Your task to perform on an android device: clear history in the chrome app Image 0: 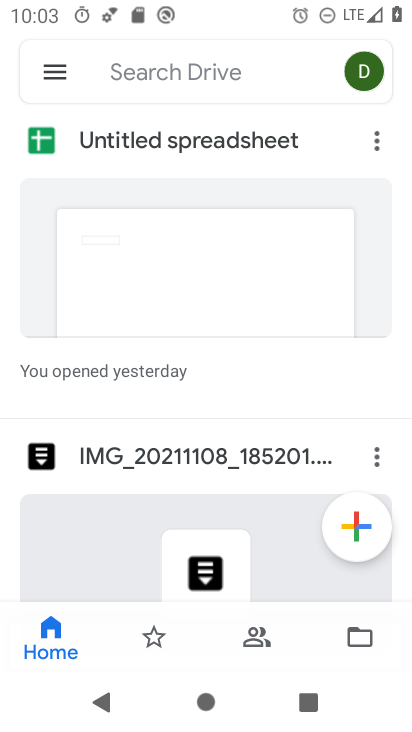
Step 0: press home button
Your task to perform on an android device: clear history in the chrome app Image 1: 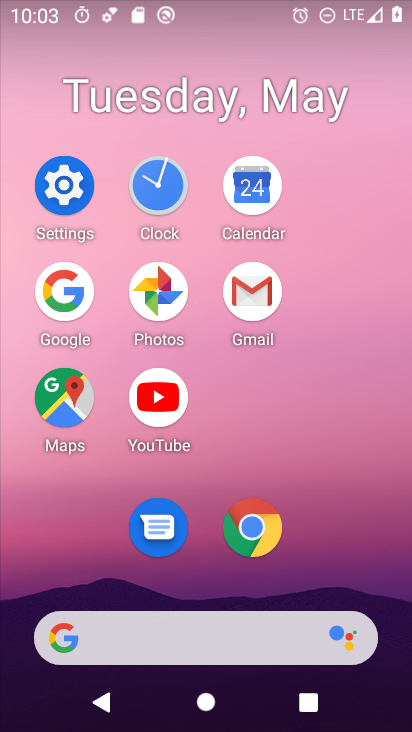
Step 1: click (245, 524)
Your task to perform on an android device: clear history in the chrome app Image 2: 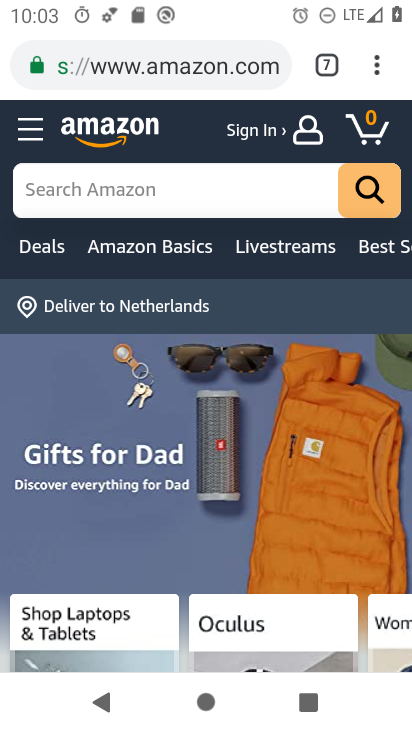
Step 2: click (377, 64)
Your task to perform on an android device: clear history in the chrome app Image 3: 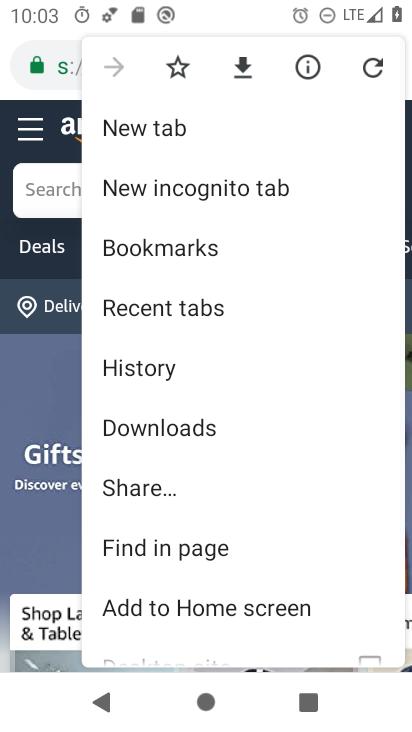
Step 3: click (173, 363)
Your task to perform on an android device: clear history in the chrome app Image 4: 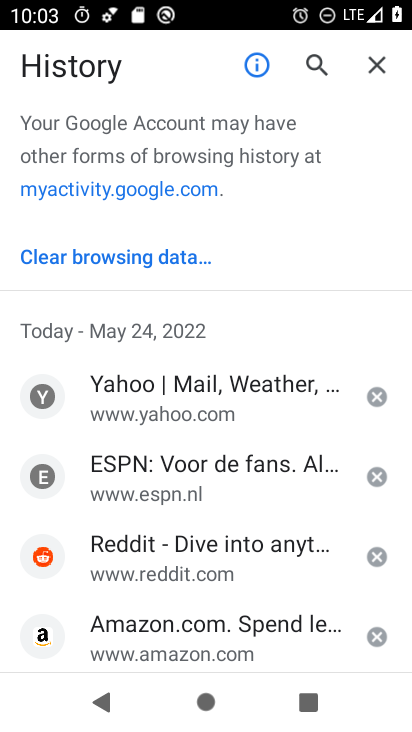
Step 4: click (130, 257)
Your task to perform on an android device: clear history in the chrome app Image 5: 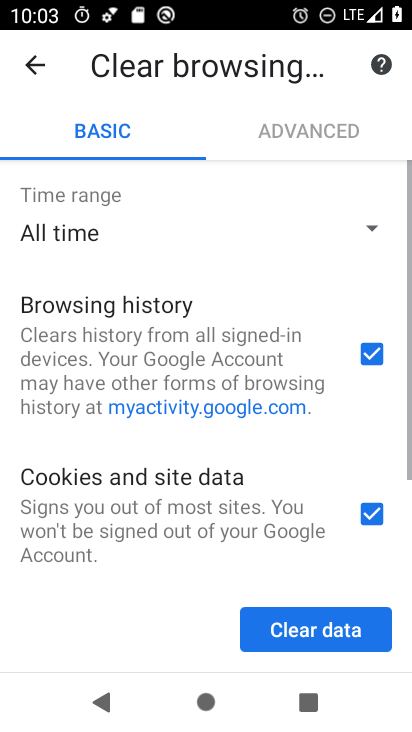
Step 5: click (302, 625)
Your task to perform on an android device: clear history in the chrome app Image 6: 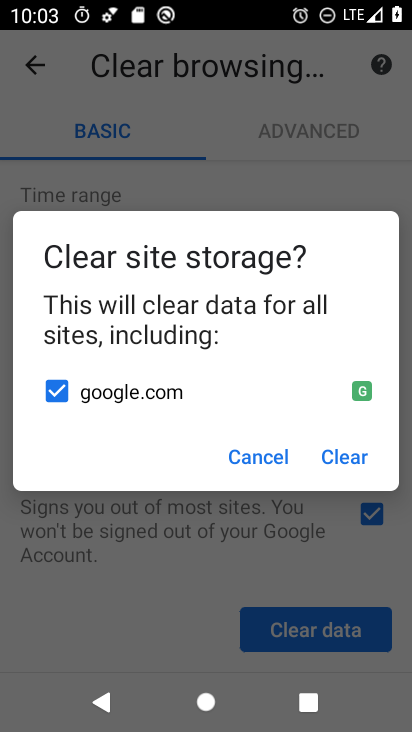
Step 6: click (340, 455)
Your task to perform on an android device: clear history in the chrome app Image 7: 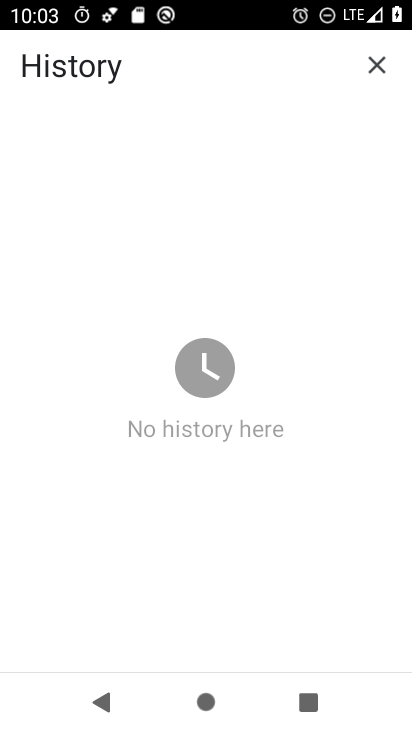
Step 7: task complete